Your task to perform on an android device: Search for sushi restaurants on Maps Image 0: 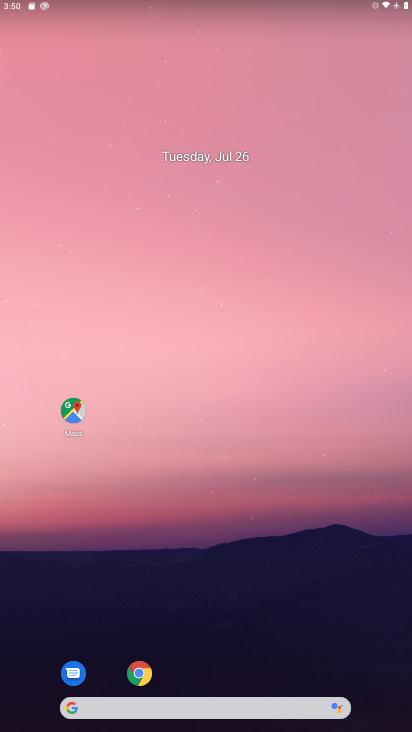
Step 0: click (77, 406)
Your task to perform on an android device: Search for sushi restaurants on Maps Image 1: 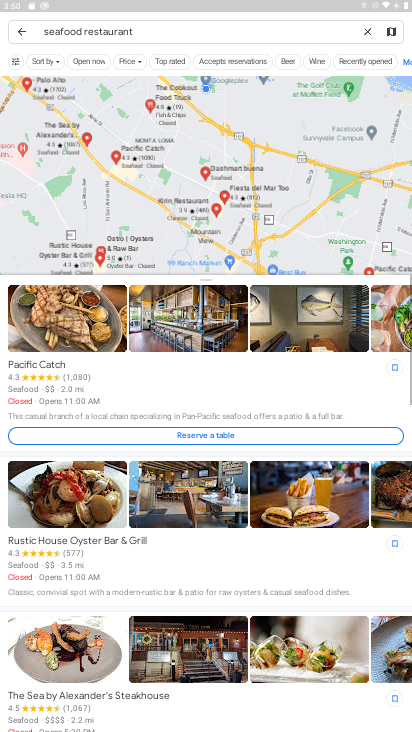
Step 1: click (369, 37)
Your task to perform on an android device: Search for sushi restaurants on Maps Image 2: 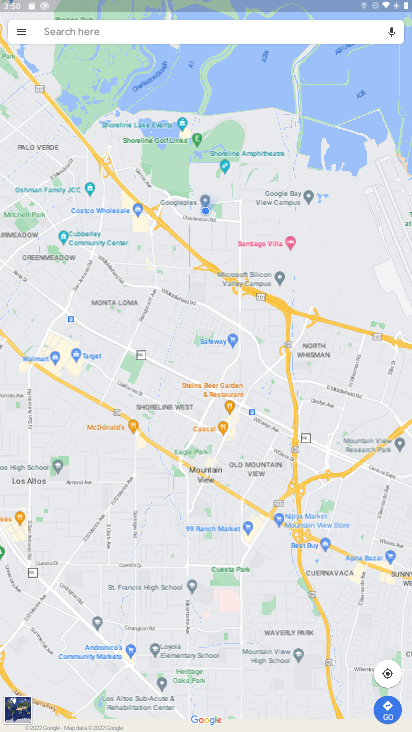
Step 2: click (113, 36)
Your task to perform on an android device: Search for sushi restaurants on Maps Image 3: 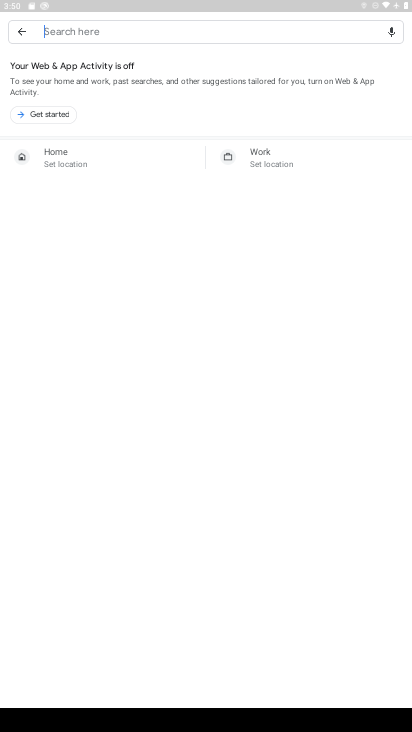
Step 3: type "sushi restaurants"
Your task to perform on an android device: Search for sushi restaurants on Maps Image 4: 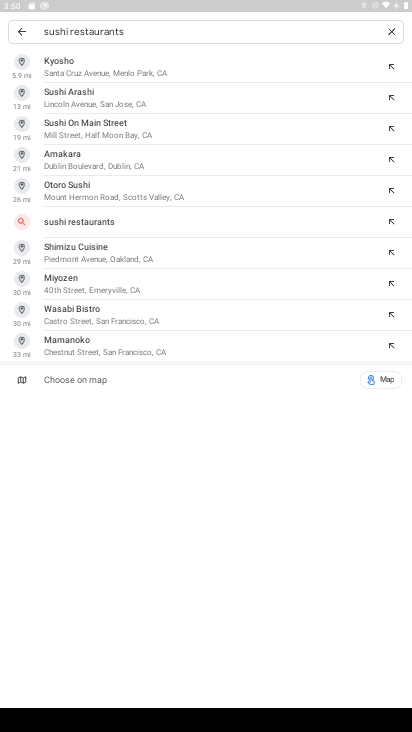
Step 4: click (98, 220)
Your task to perform on an android device: Search for sushi restaurants on Maps Image 5: 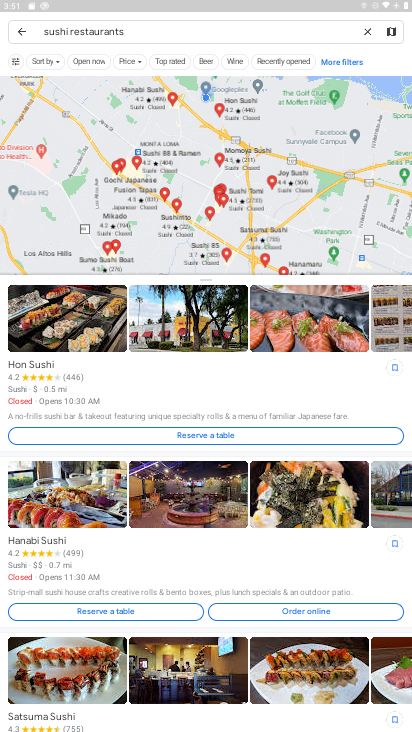
Step 5: task complete